Your task to perform on an android device: see tabs open on other devices in the chrome app Image 0: 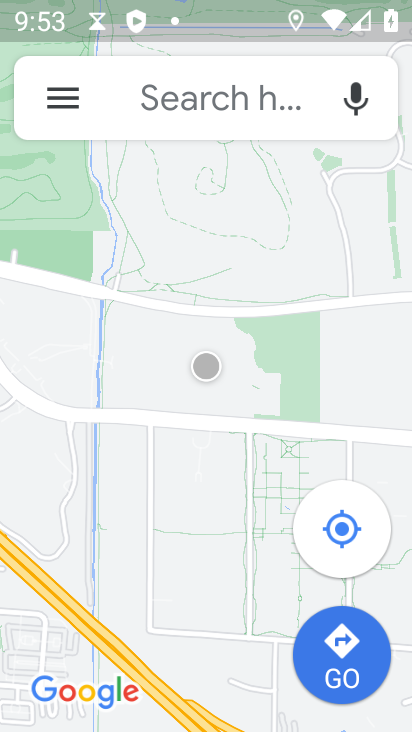
Step 0: press back button
Your task to perform on an android device: see tabs open on other devices in the chrome app Image 1: 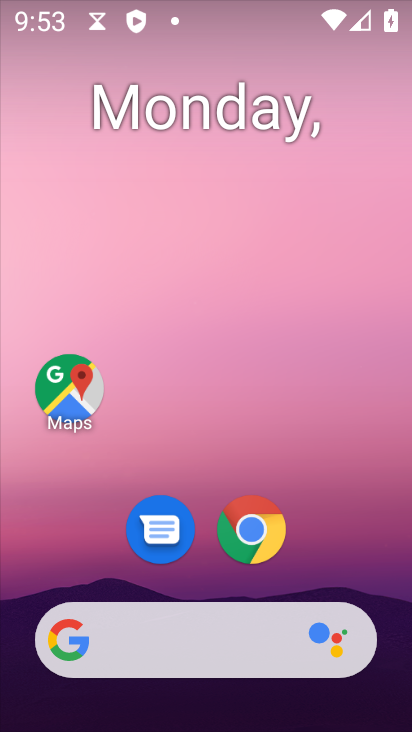
Step 1: click (251, 530)
Your task to perform on an android device: see tabs open on other devices in the chrome app Image 2: 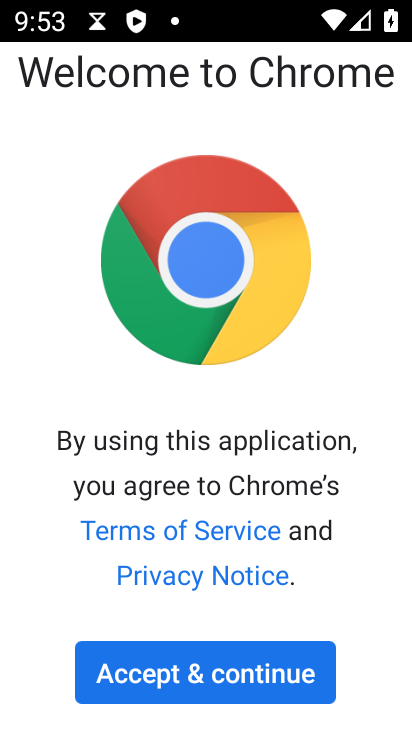
Step 2: click (198, 675)
Your task to perform on an android device: see tabs open on other devices in the chrome app Image 3: 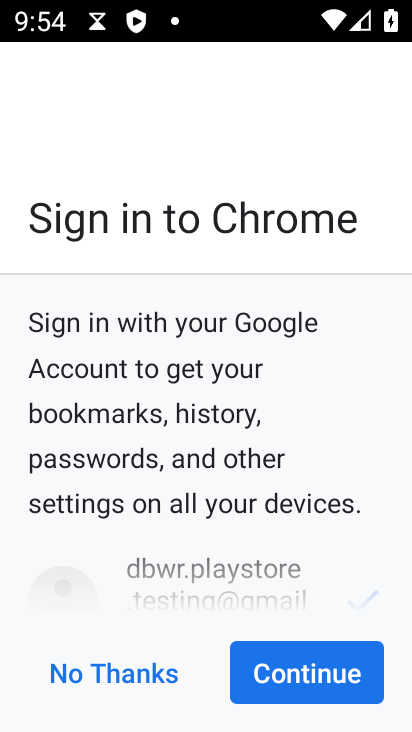
Step 3: click (296, 679)
Your task to perform on an android device: see tabs open on other devices in the chrome app Image 4: 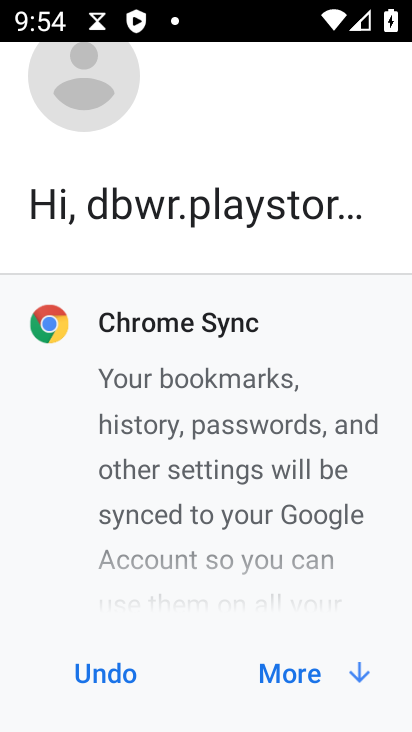
Step 4: click (296, 675)
Your task to perform on an android device: see tabs open on other devices in the chrome app Image 5: 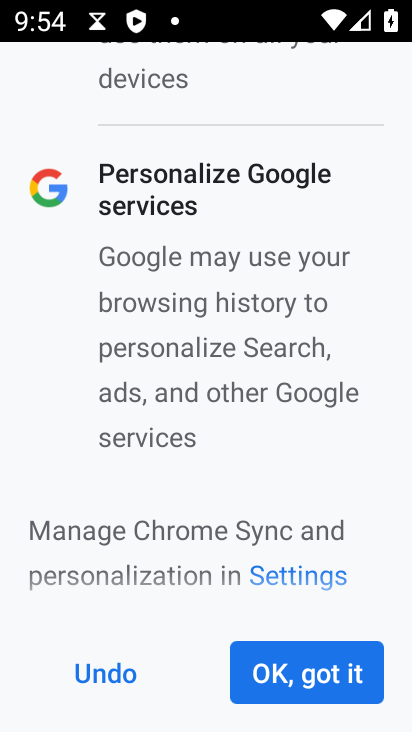
Step 5: click (296, 675)
Your task to perform on an android device: see tabs open on other devices in the chrome app Image 6: 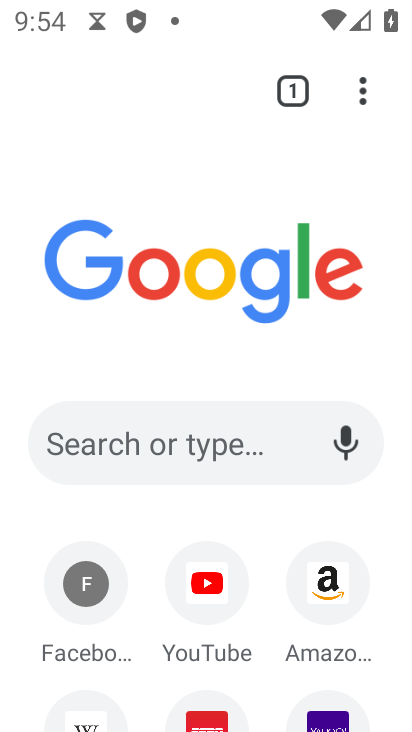
Step 6: click (362, 86)
Your task to perform on an android device: see tabs open on other devices in the chrome app Image 7: 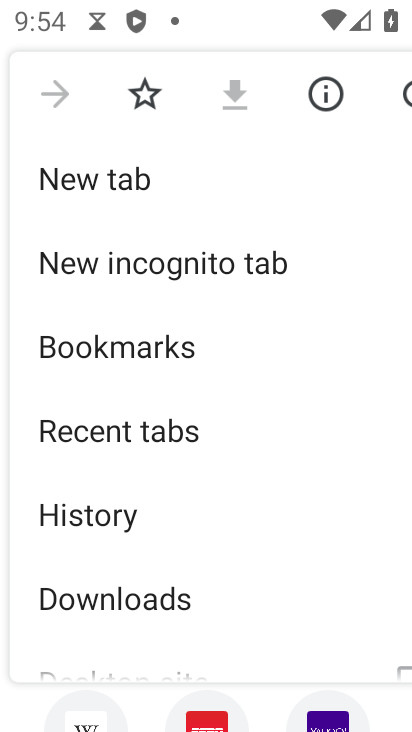
Step 7: click (186, 433)
Your task to perform on an android device: see tabs open on other devices in the chrome app Image 8: 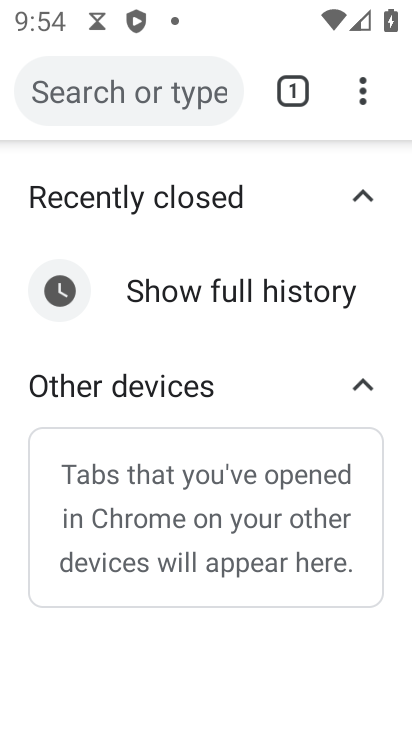
Step 8: click (361, 391)
Your task to perform on an android device: see tabs open on other devices in the chrome app Image 9: 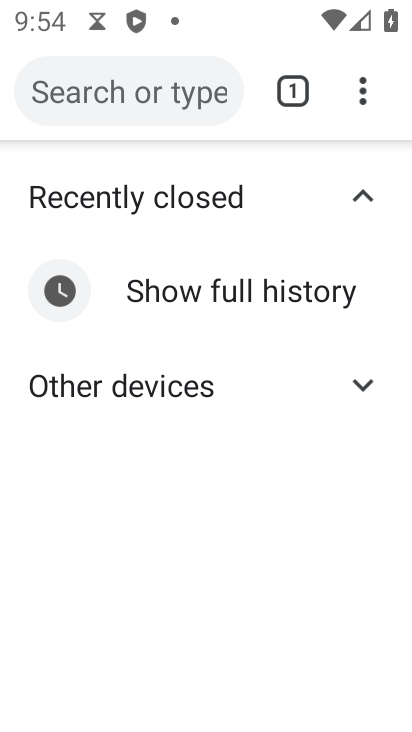
Step 9: task complete